Your task to perform on an android device: Go to privacy settings Image 0: 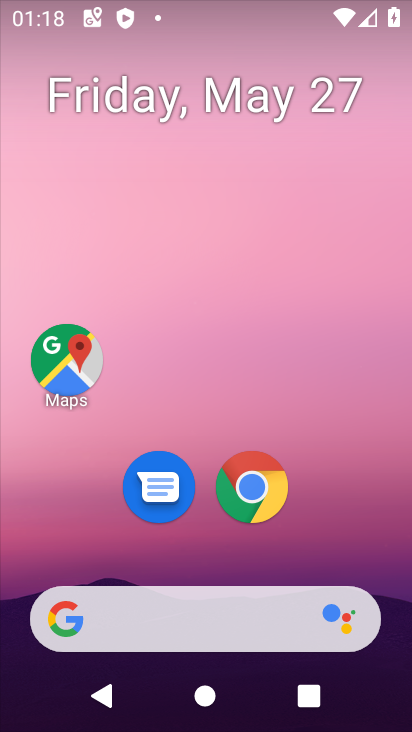
Step 0: drag from (159, 727) to (184, 11)
Your task to perform on an android device: Go to privacy settings Image 1: 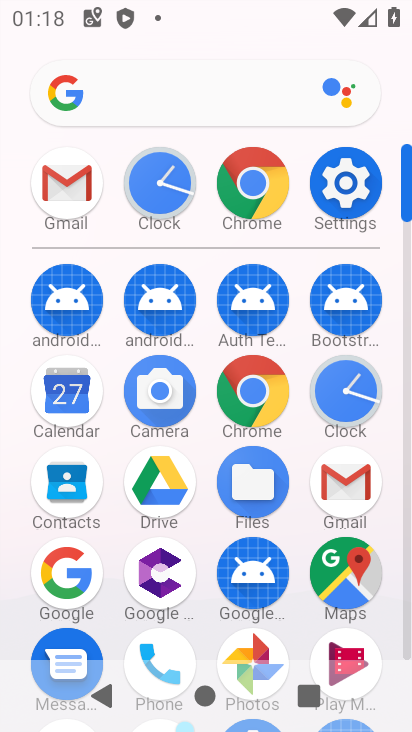
Step 1: click (346, 189)
Your task to perform on an android device: Go to privacy settings Image 2: 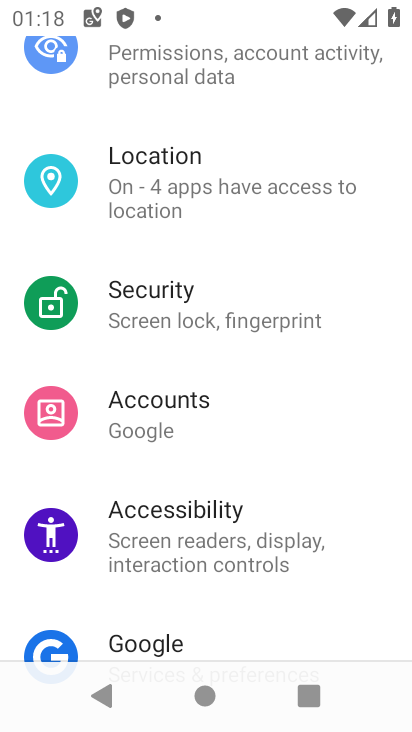
Step 2: drag from (283, 620) to (241, 148)
Your task to perform on an android device: Go to privacy settings Image 3: 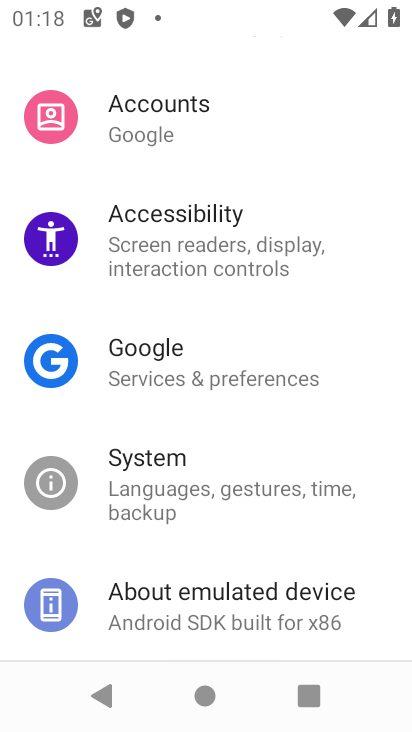
Step 3: drag from (246, 112) to (276, 561)
Your task to perform on an android device: Go to privacy settings Image 4: 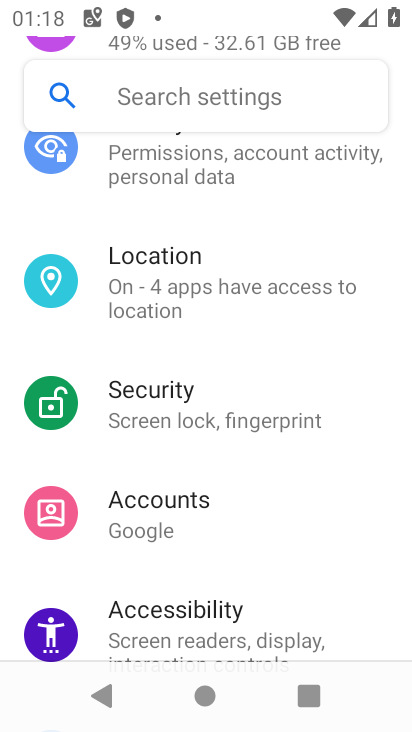
Step 4: drag from (240, 263) to (232, 629)
Your task to perform on an android device: Go to privacy settings Image 5: 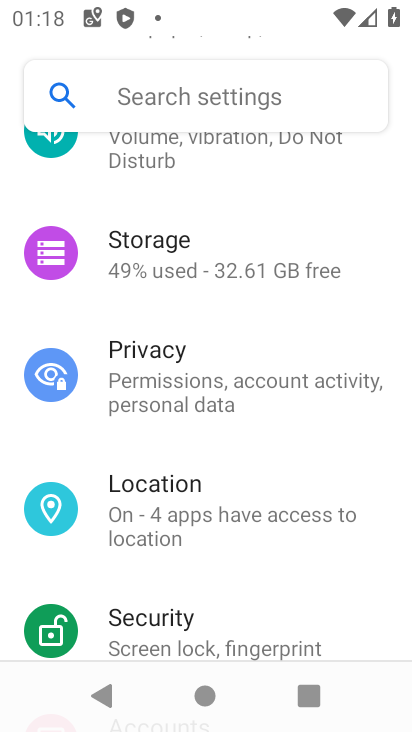
Step 5: click (208, 372)
Your task to perform on an android device: Go to privacy settings Image 6: 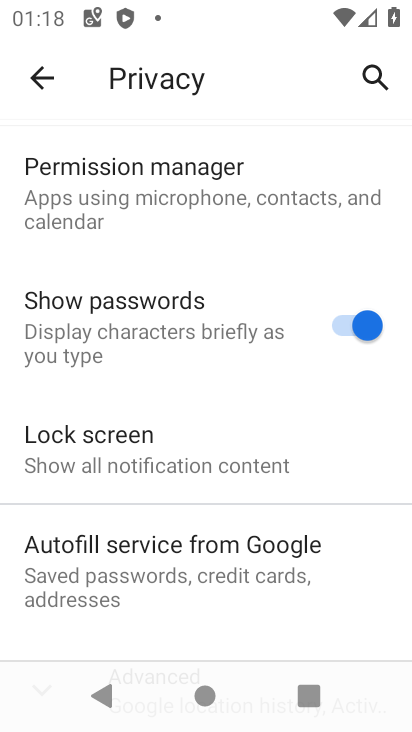
Step 6: drag from (333, 619) to (307, 374)
Your task to perform on an android device: Go to privacy settings Image 7: 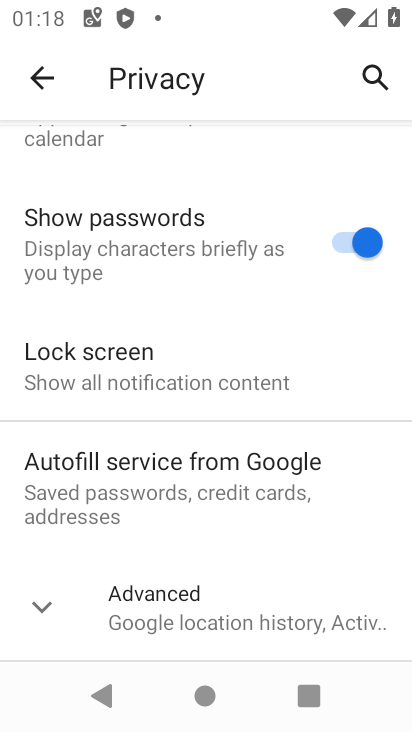
Step 7: click (243, 616)
Your task to perform on an android device: Go to privacy settings Image 8: 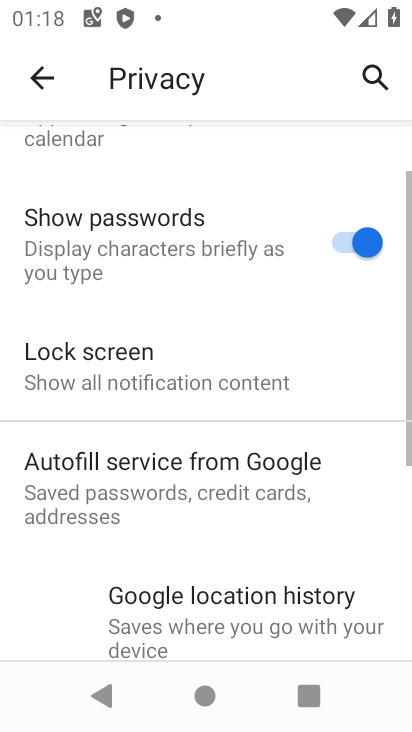
Step 8: task complete